Your task to perform on an android device: How do I get to the nearest Sprint Store? Image 0: 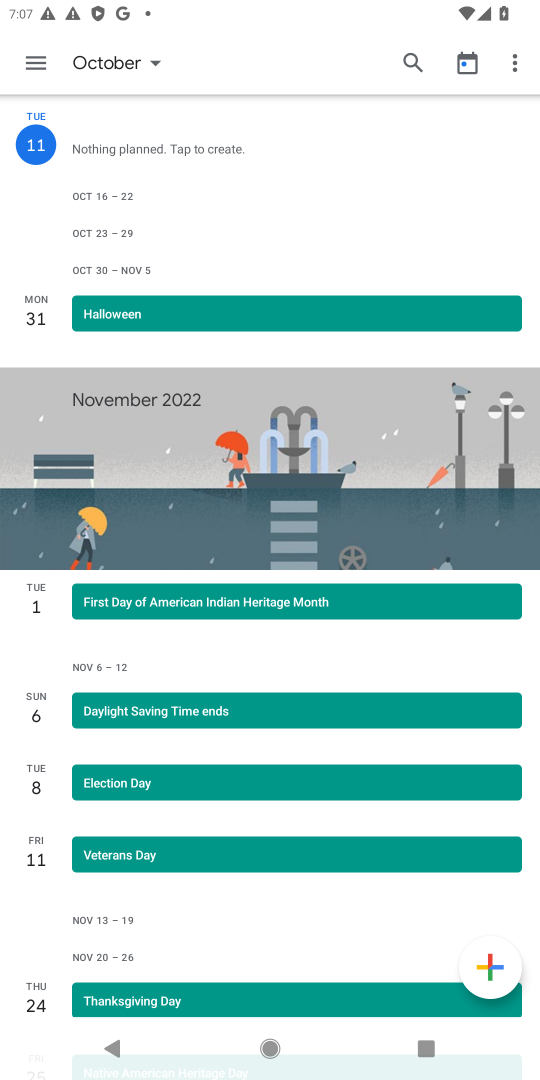
Step 0: press home button
Your task to perform on an android device: How do I get to the nearest Sprint Store? Image 1: 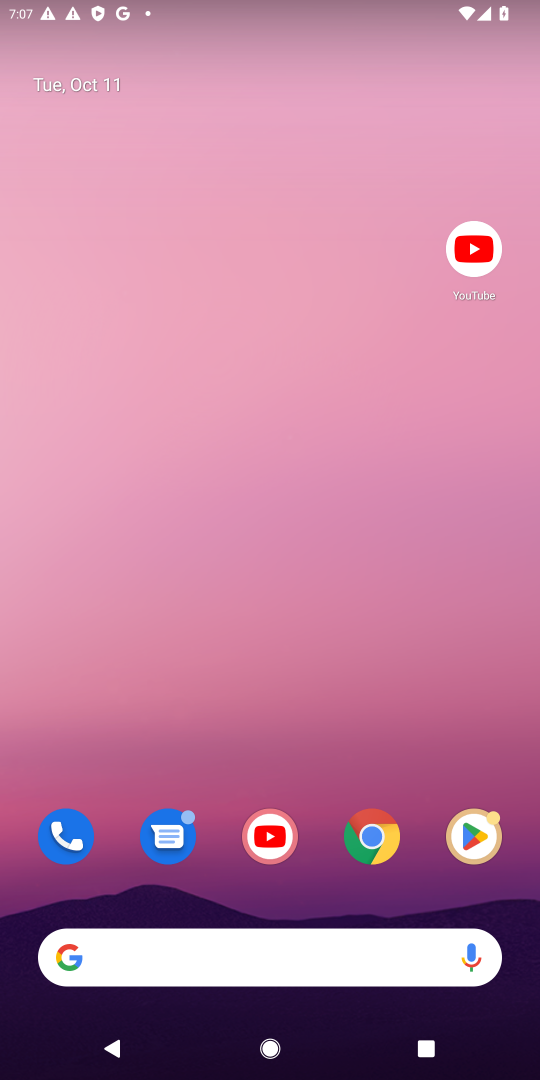
Step 1: click (376, 833)
Your task to perform on an android device: How do I get to the nearest Sprint Store? Image 2: 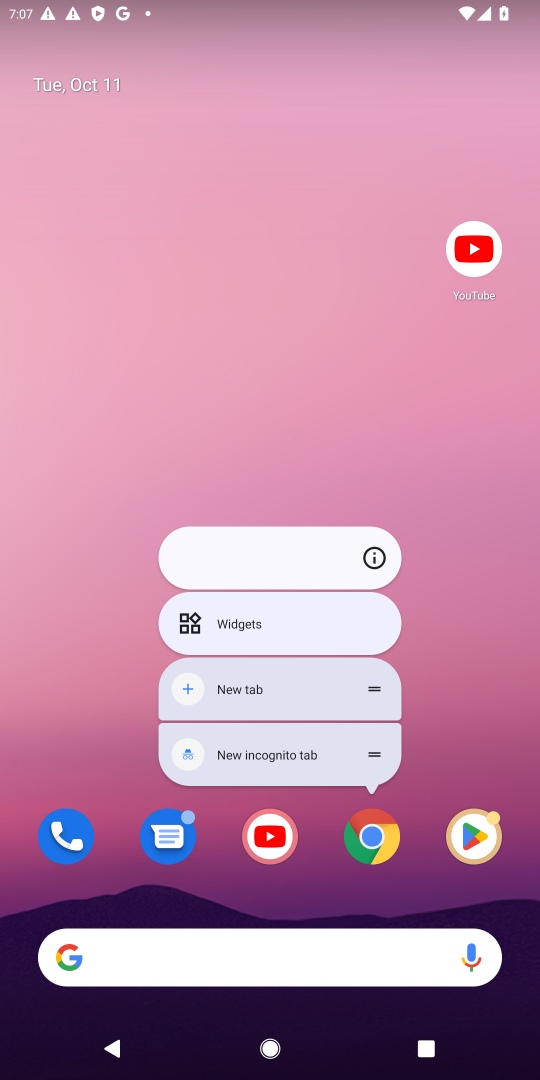
Step 2: click (376, 833)
Your task to perform on an android device: How do I get to the nearest Sprint Store? Image 3: 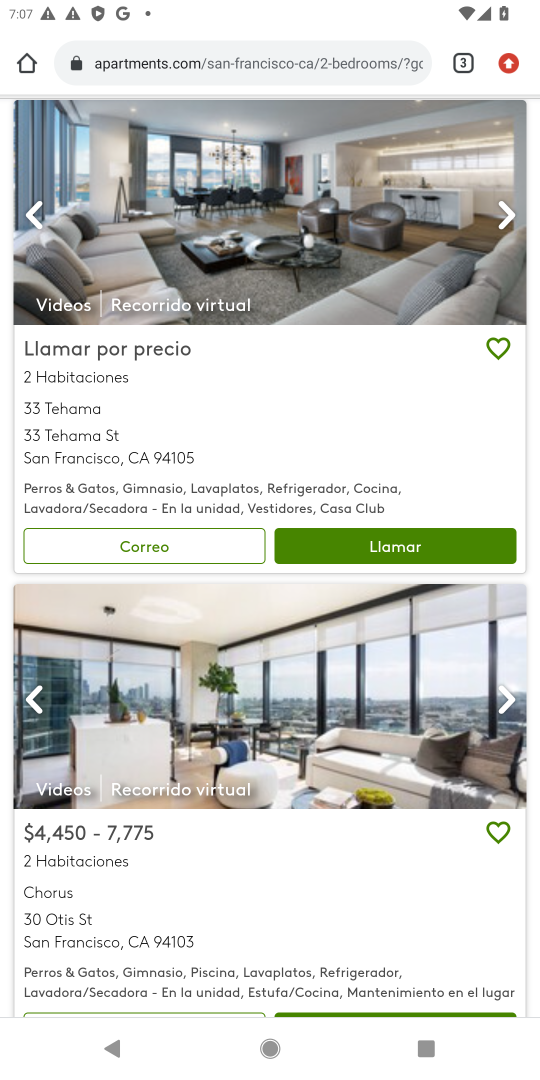
Step 3: click (294, 52)
Your task to perform on an android device: How do I get to the nearest Sprint Store? Image 4: 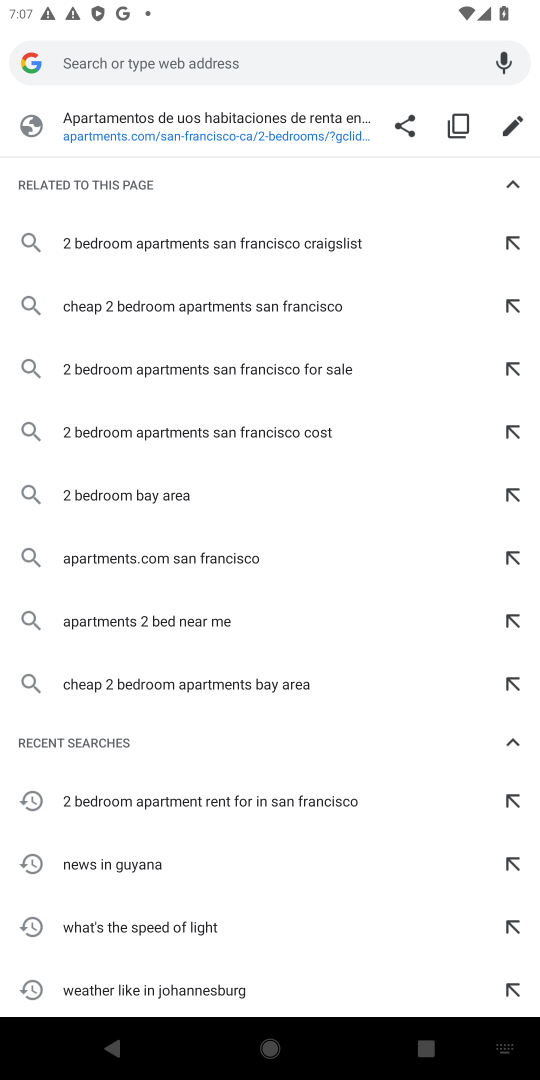
Step 4: type "nearest Sprint Store"
Your task to perform on an android device: How do I get to the nearest Sprint Store? Image 5: 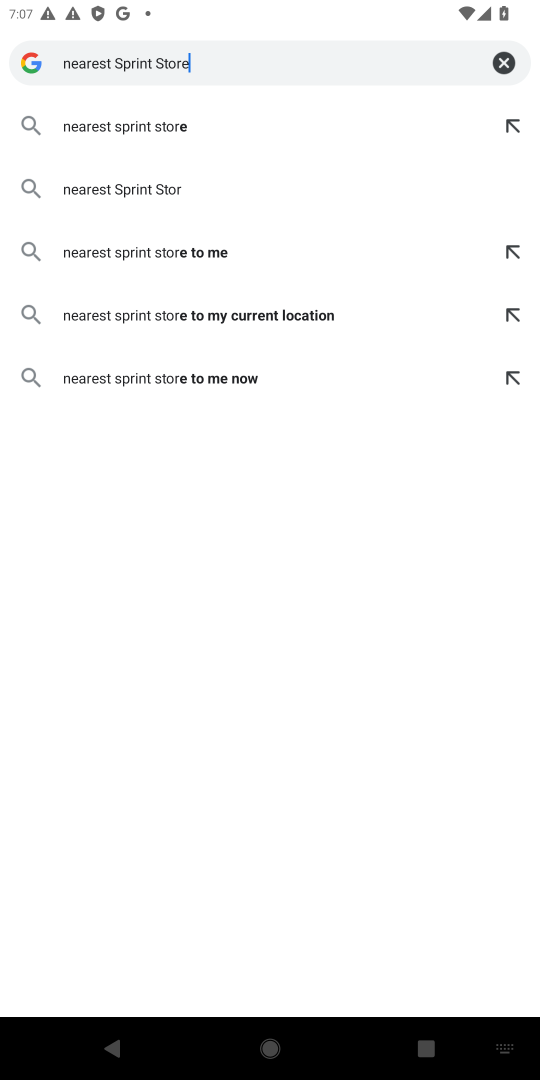
Step 5: press enter
Your task to perform on an android device: How do I get to the nearest Sprint Store? Image 6: 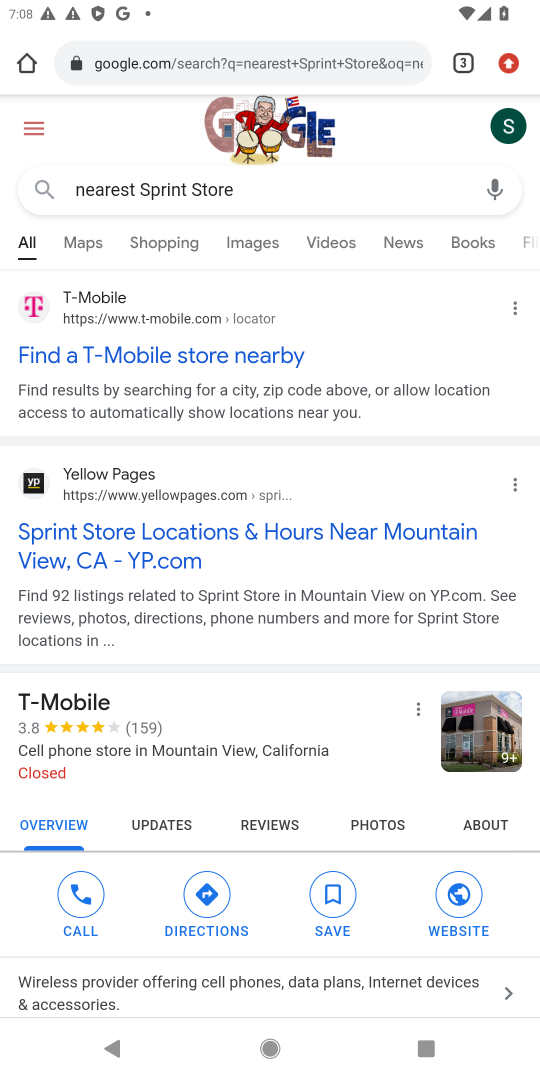
Step 6: task complete